Your task to perform on an android device: read, delete, or share a saved page in the chrome app Image 0: 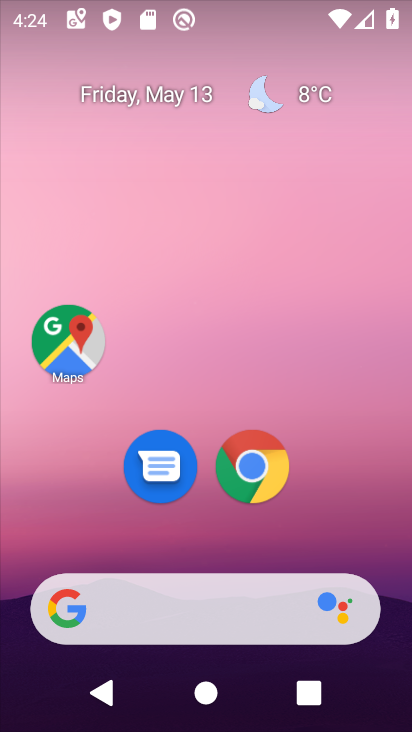
Step 0: click (261, 466)
Your task to perform on an android device: read, delete, or share a saved page in the chrome app Image 1: 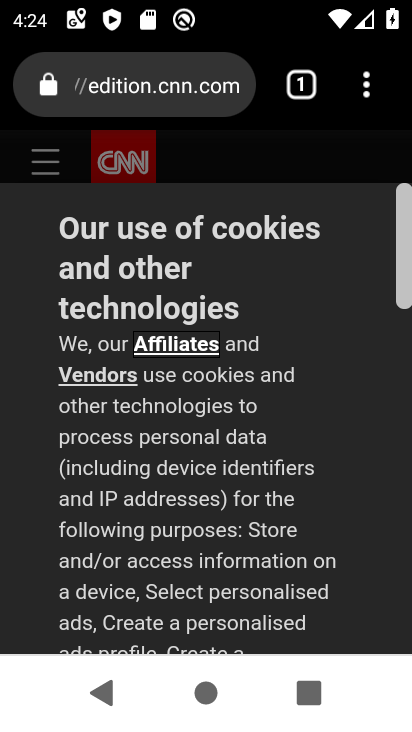
Step 1: click (363, 92)
Your task to perform on an android device: read, delete, or share a saved page in the chrome app Image 2: 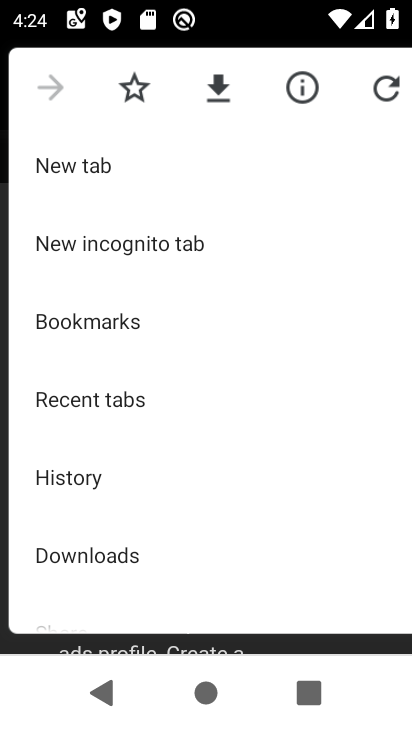
Step 2: click (80, 554)
Your task to perform on an android device: read, delete, or share a saved page in the chrome app Image 3: 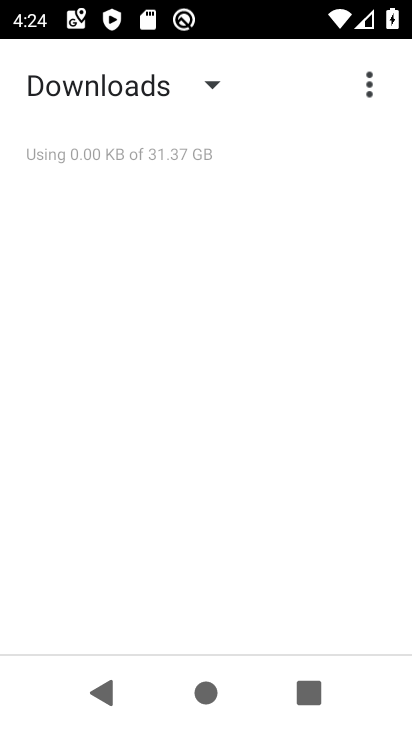
Step 3: click (209, 82)
Your task to perform on an android device: read, delete, or share a saved page in the chrome app Image 4: 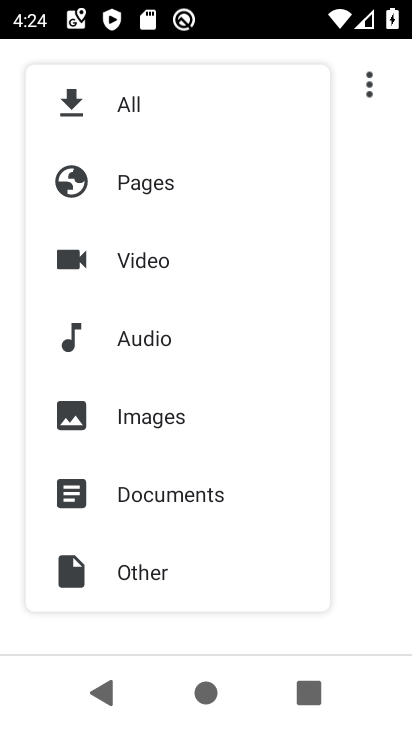
Step 4: click (160, 175)
Your task to perform on an android device: read, delete, or share a saved page in the chrome app Image 5: 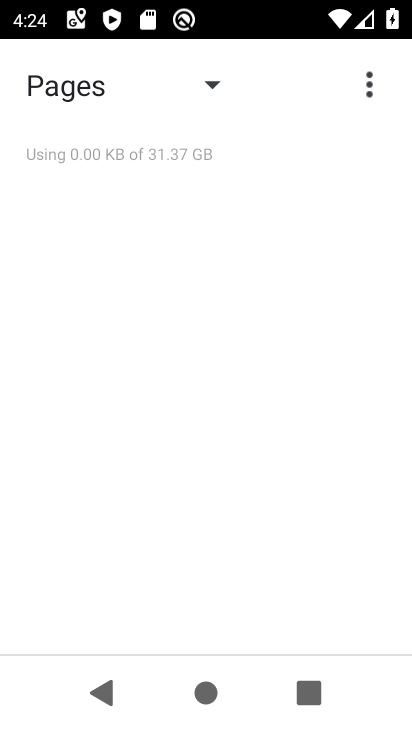
Step 5: task complete